Your task to perform on an android device: turn off notifications settings in the gmail app Image 0: 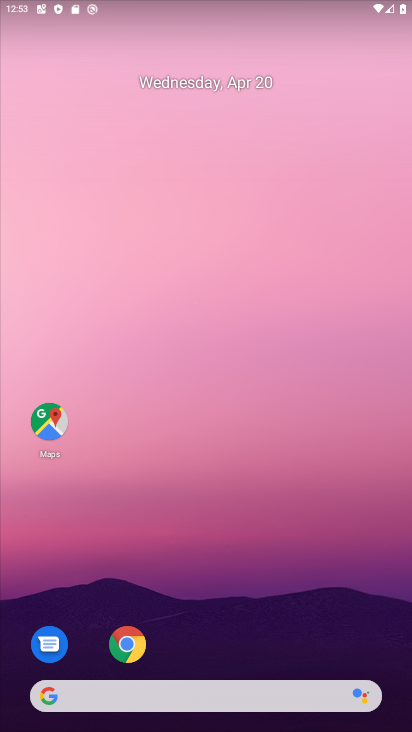
Step 0: drag from (217, 209) to (240, 13)
Your task to perform on an android device: turn off notifications settings in the gmail app Image 1: 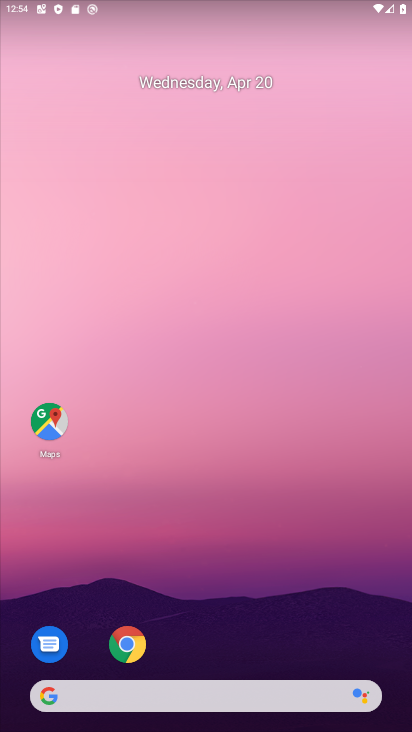
Step 1: drag from (208, 611) to (253, 21)
Your task to perform on an android device: turn off notifications settings in the gmail app Image 2: 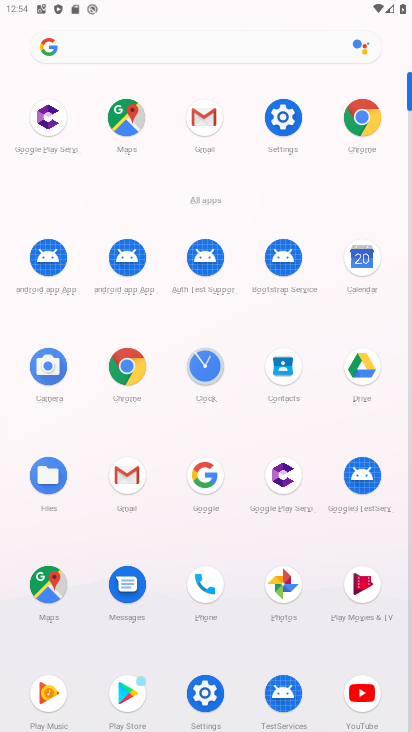
Step 2: click (201, 136)
Your task to perform on an android device: turn off notifications settings in the gmail app Image 3: 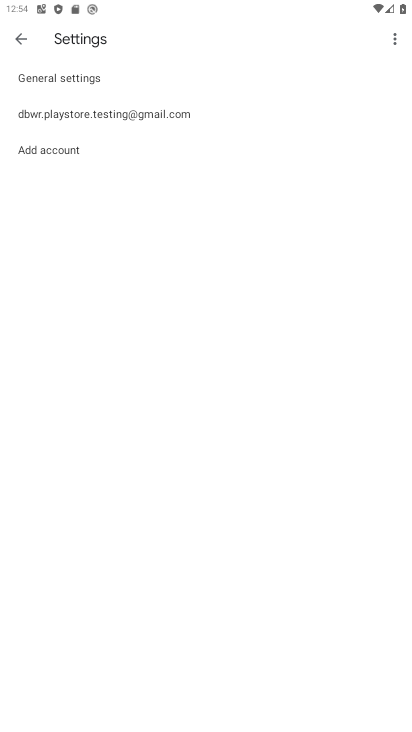
Step 3: click (28, 45)
Your task to perform on an android device: turn off notifications settings in the gmail app Image 4: 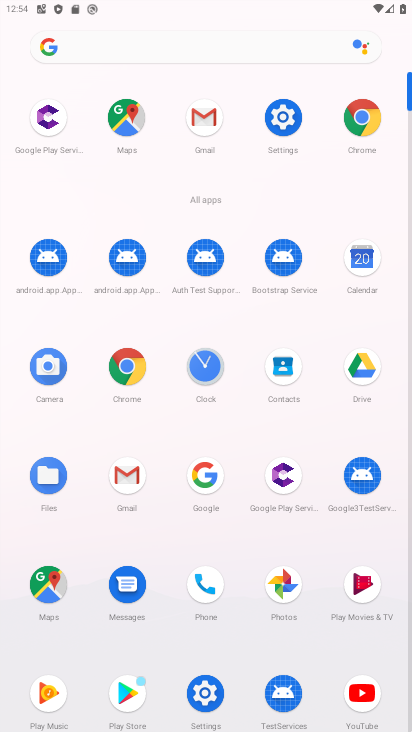
Step 4: click (206, 128)
Your task to perform on an android device: turn off notifications settings in the gmail app Image 5: 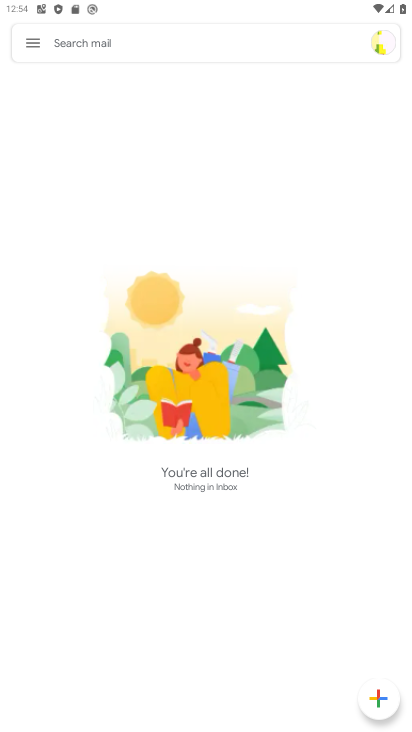
Step 5: click (22, 39)
Your task to perform on an android device: turn off notifications settings in the gmail app Image 6: 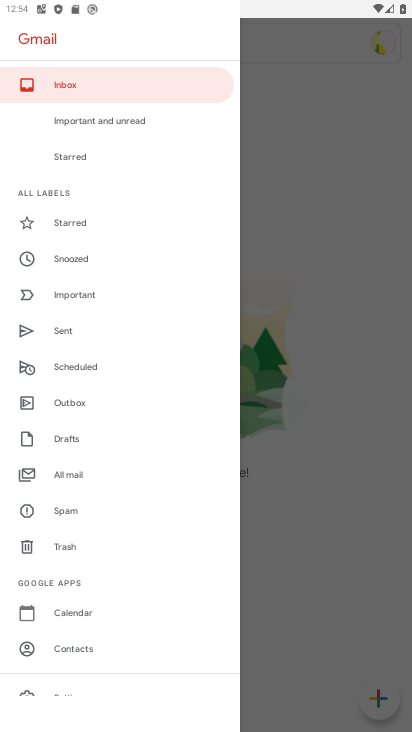
Step 6: drag from (69, 345) to (125, 76)
Your task to perform on an android device: turn off notifications settings in the gmail app Image 7: 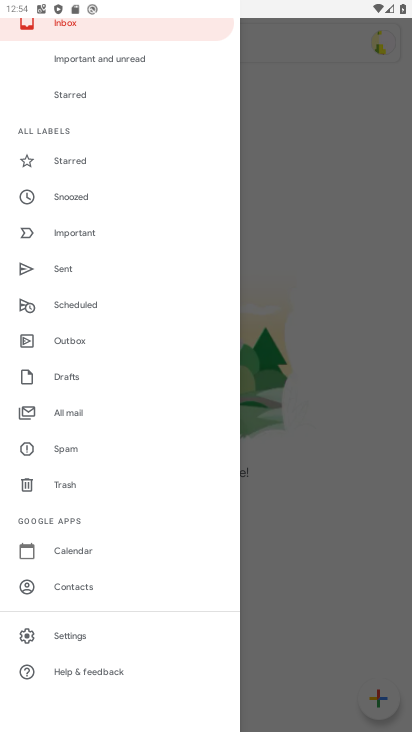
Step 7: click (78, 640)
Your task to perform on an android device: turn off notifications settings in the gmail app Image 8: 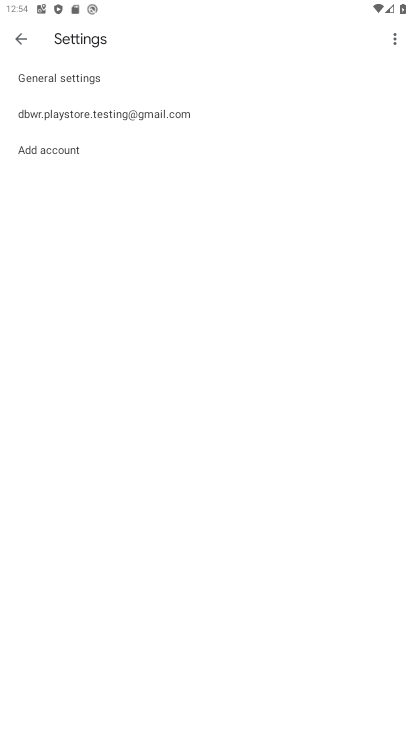
Step 8: click (82, 77)
Your task to perform on an android device: turn off notifications settings in the gmail app Image 9: 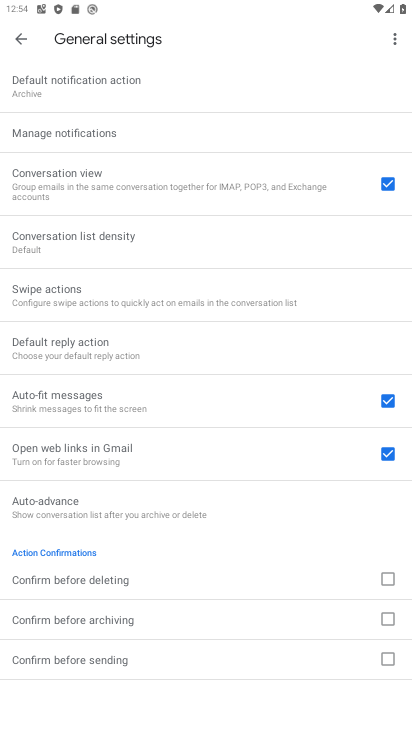
Step 9: click (80, 131)
Your task to perform on an android device: turn off notifications settings in the gmail app Image 10: 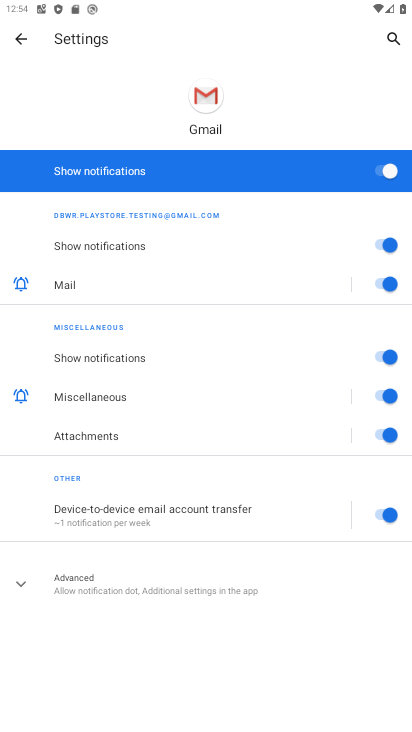
Step 10: click (385, 172)
Your task to perform on an android device: turn off notifications settings in the gmail app Image 11: 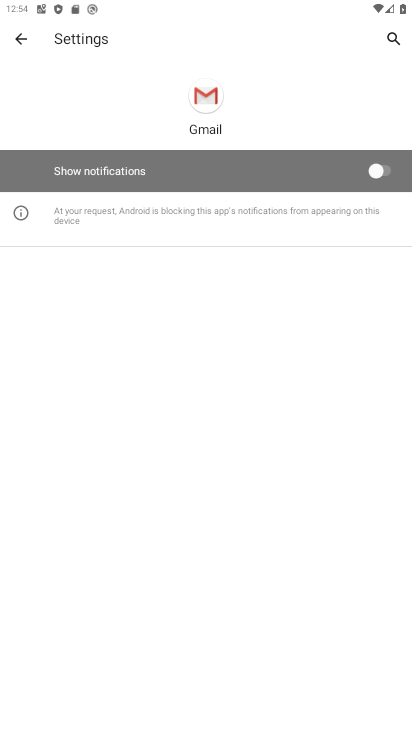
Step 11: task complete